Your task to perform on an android device: change text size in settings app Image 0: 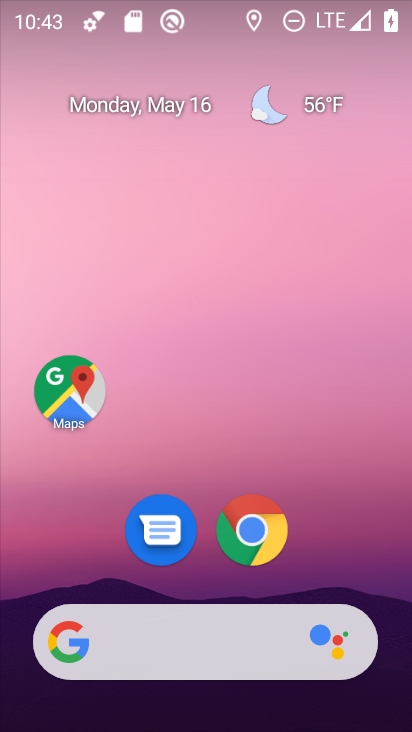
Step 0: drag from (230, 610) to (264, 256)
Your task to perform on an android device: change text size in settings app Image 1: 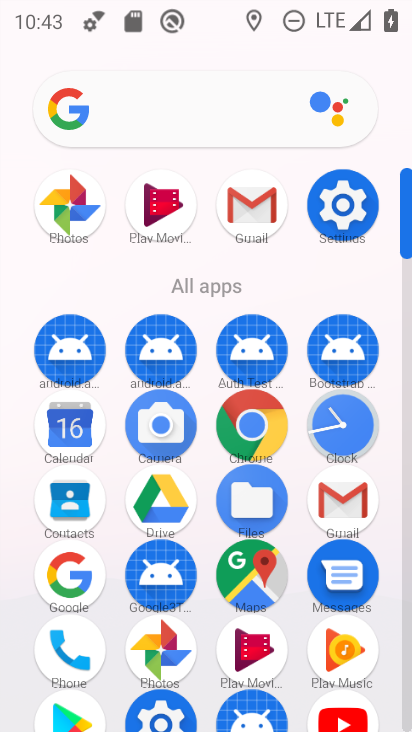
Step 1: click (335, 217)
Your task to perform on an android device: change text size in settings app Image 2: 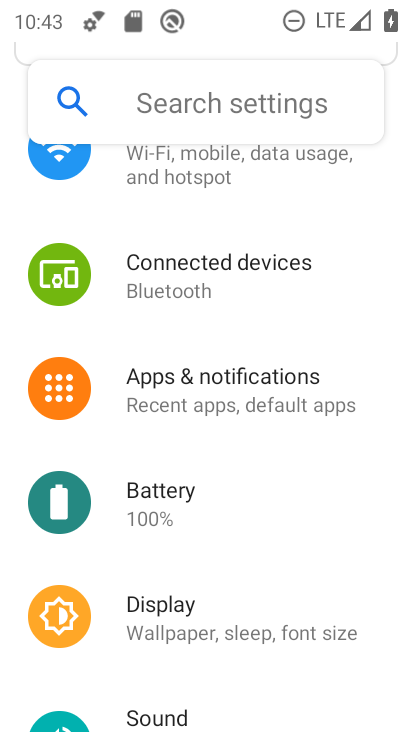
Step 2: click (172, 606)
Your task to perform on an android device: change text size in settings app Image 3: 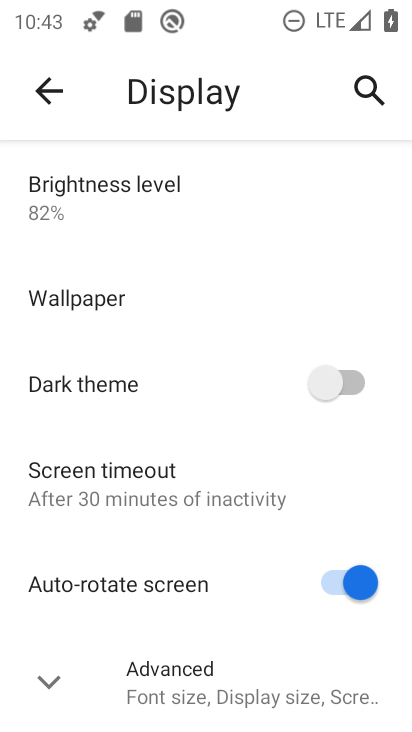
Step 3: click (167, 663)
Your task to perform on an android device: change text size in settings app Image 4: 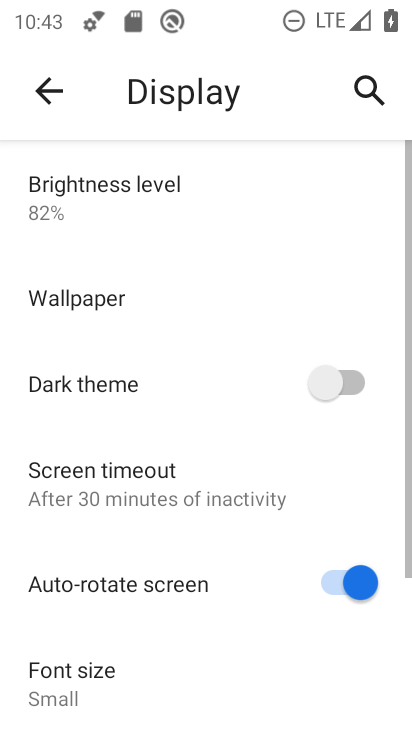
Step 4: click (140, 684)
Your task to perform on an android device: change text size in settings app Image 5: 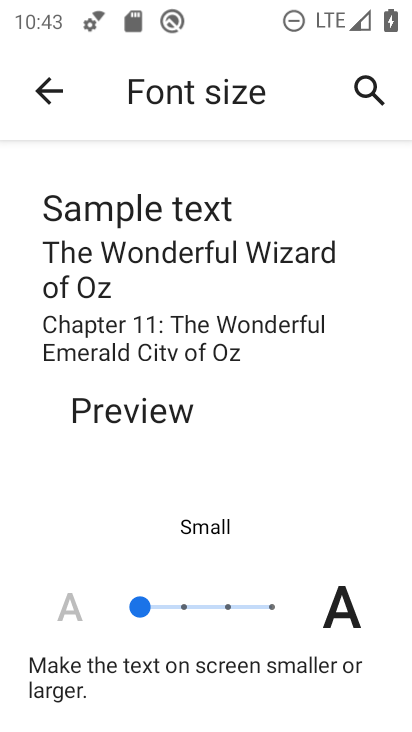
Step 5: click (175, 616)
Your task to perform on an android device: change text size in settings app Image 6: 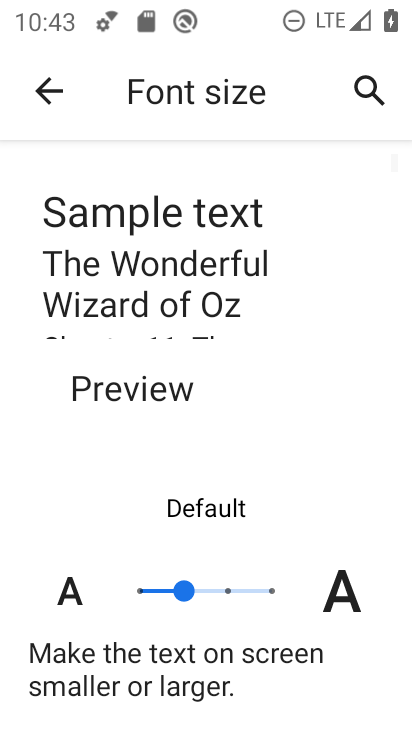
Step 6: task complete